Your task to perform on an android device: move a message to another label in the gmail app Image 0: 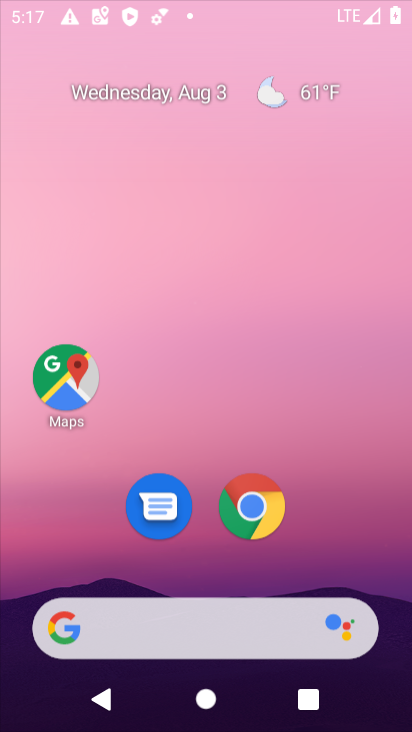
Step 0: drag from (315, 531) to (309, 66)
Your task to perform on an android device: move a message to another label in the gmail app Image 1: 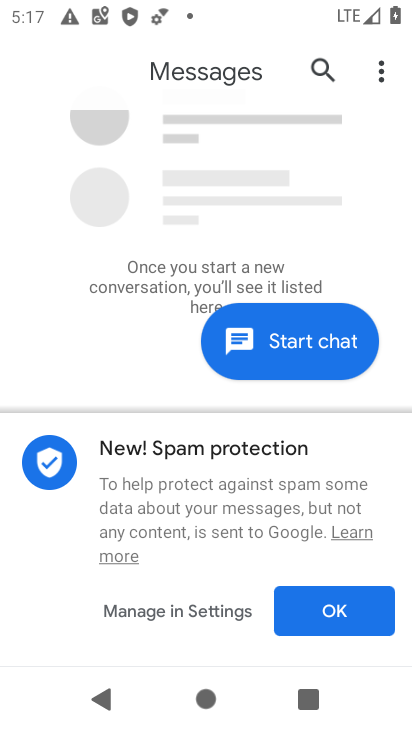
Step 1: press home button
Your task to perform on an android device: move a message to another label in the gmail app Image 2: 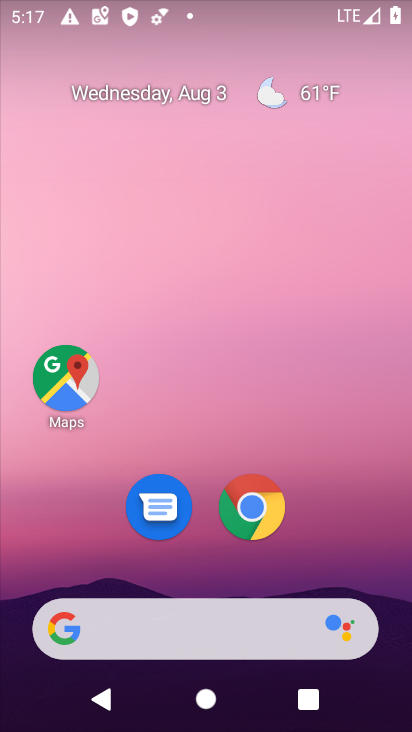
Step 2: drag from (365, 525) to (347, 66)
Your task to perform on an android device: move a message to another label in the gmail app Image 3: 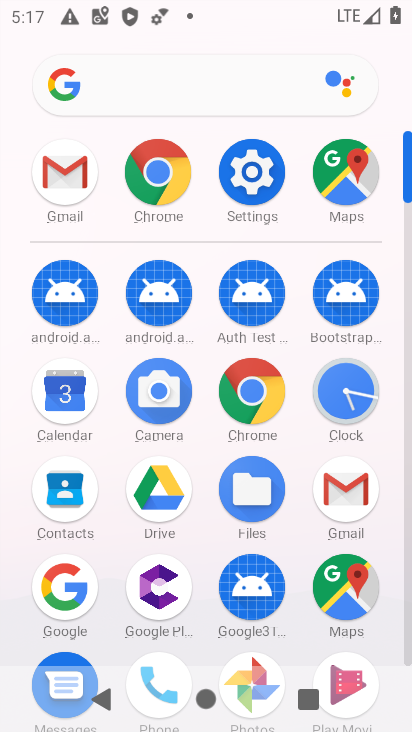
Step 3: click (48, 165)
Your task to perform on an android device: move a message to another label in the gmail app Image 4: 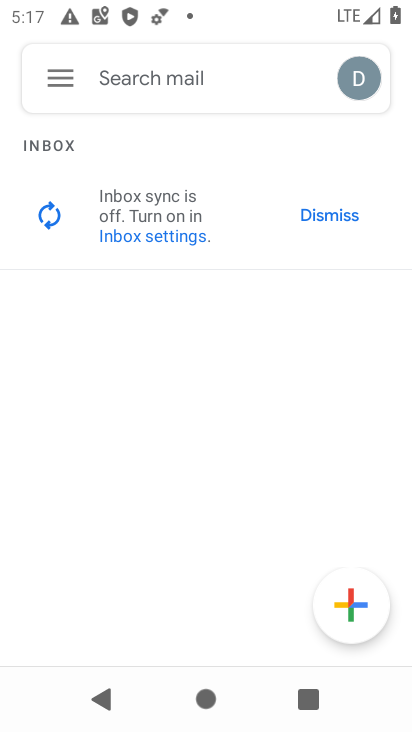
Step 4: click (71, 71)
Your task to perform on an android device: move a message to another label in the gmail app Image 5: 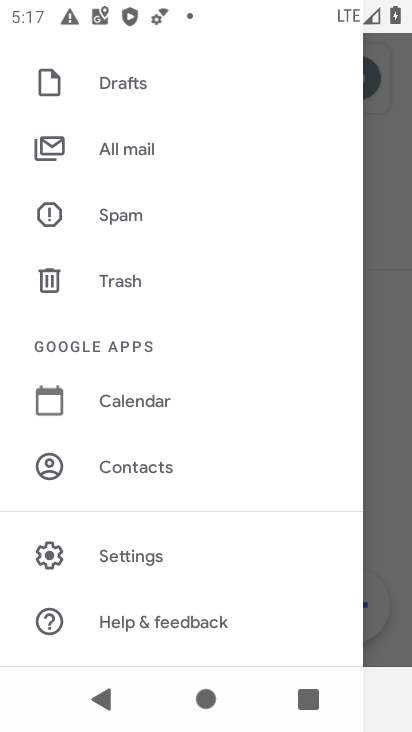
Step 5: drag from (216, 126) to (191, 531)
Your task to perform on an android device: move a message to another label in the gmail app Image 6: 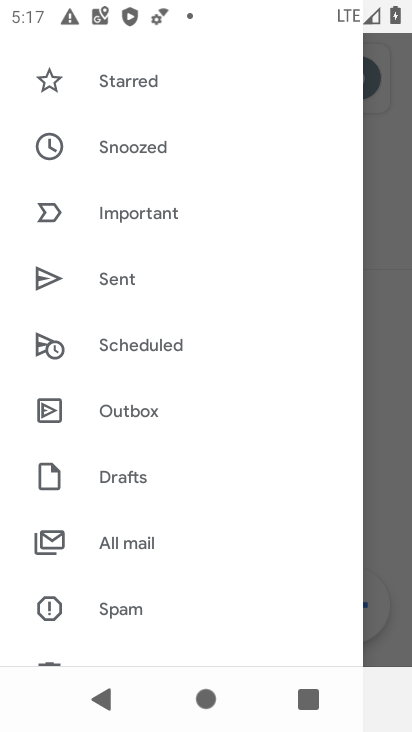
Step 6: drag from (192, 151) to (187, 518)
Your task to perform on an android device: move a message to another label in the gmail app Image 7: 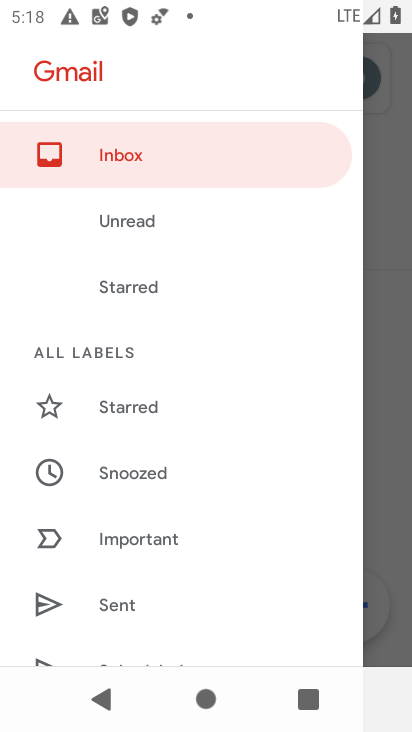
Step 7: drag from (189, 555) to (280, 121)
Your task to perform on an android device: move a message to another label in the gmail app Image 8: 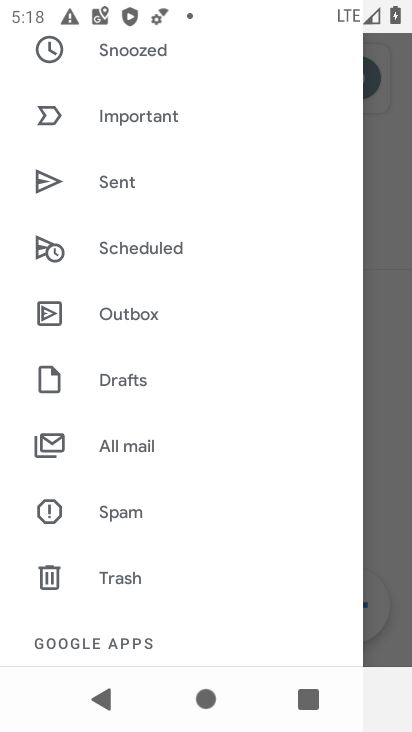
Step 8: drag from (180, 542) to (265, 43)
Your task to perform on an android device: move a message to another label in the gmail app Image 9: 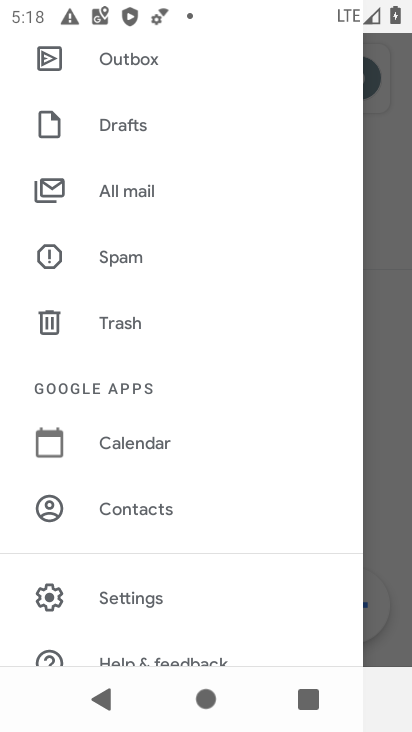
Step 9: click (147, 179)
Your task to perform on an android device: move a message to another label in the gmail app Image 10: 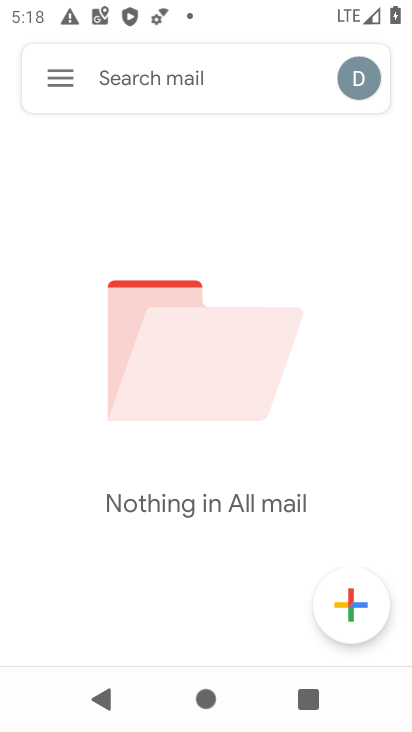
Step 10: task complete